Your task to perform on an android device: View the shopping cart on newegg. Search for alienware aurora on newegg, select the first entry, and add it to the cart. Image 0: 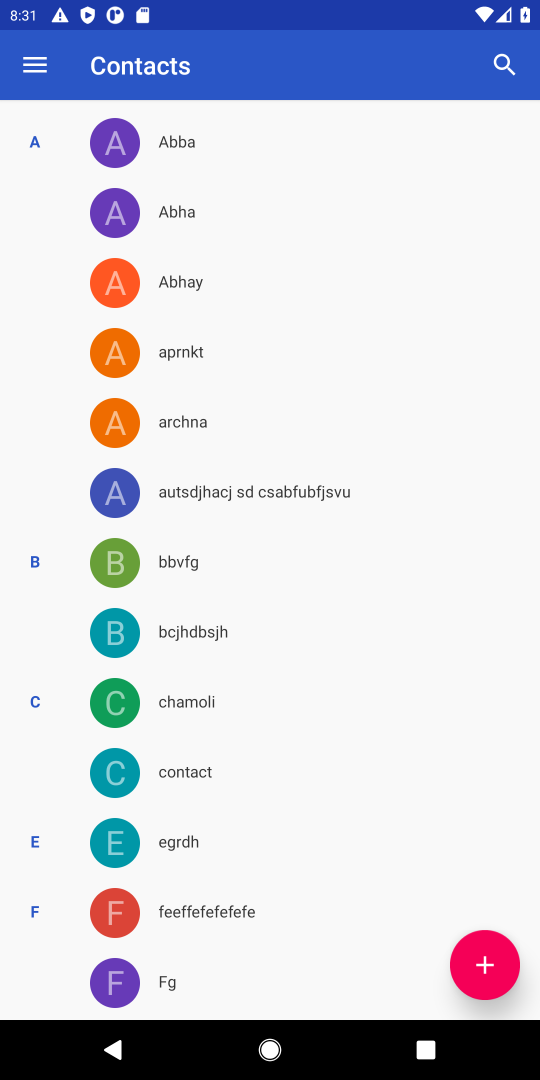
Step 0: press home button
Your task to perform on an android device: View the shopping cart on newegg. Search for alienware aurora on newegg, select the first entry, and add it to the cart. Image 1: 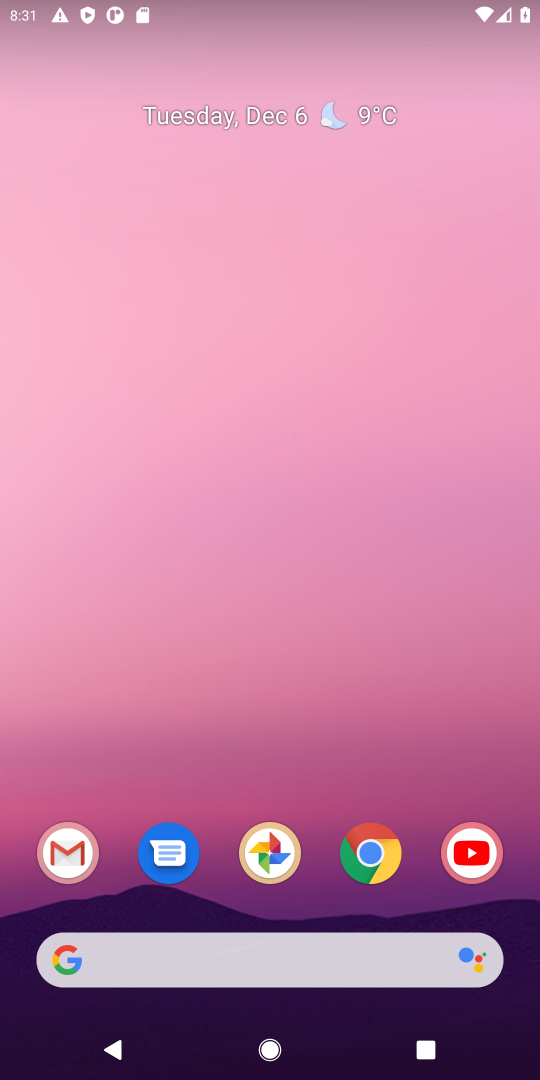
Step 1: click (376, 850)
Your task to perform on an android device: View the shopping cart on newegg. Search for alienware aurora on newegg, select the first entry, and add it to the cart. Image 2: 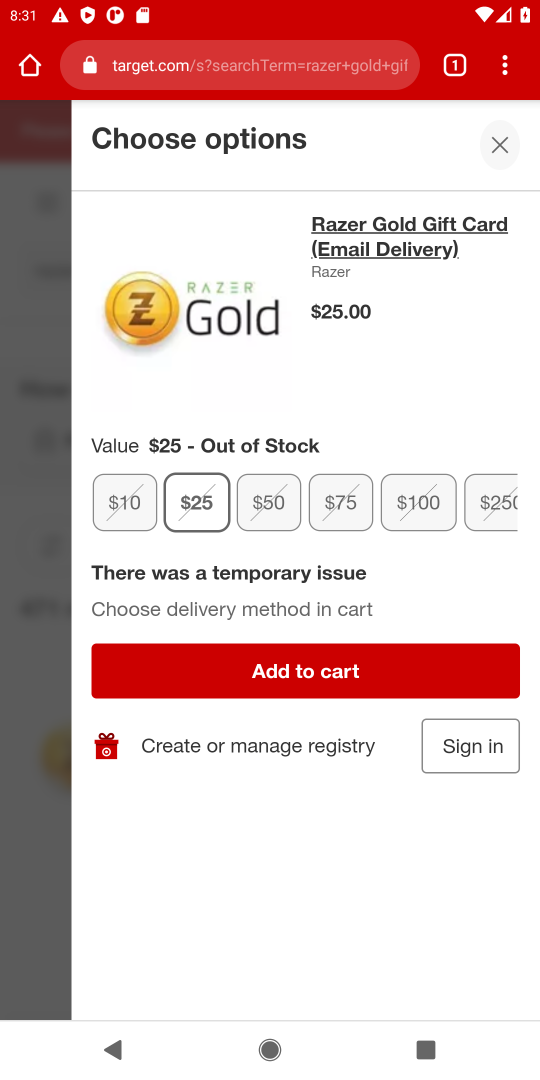
Step 2: click (292, 61)
Your task to perform on an android device: View the shopping cart on newegg. Search for alienware aurora on newegg, select the first entry, and add it to the cart. Image 3: 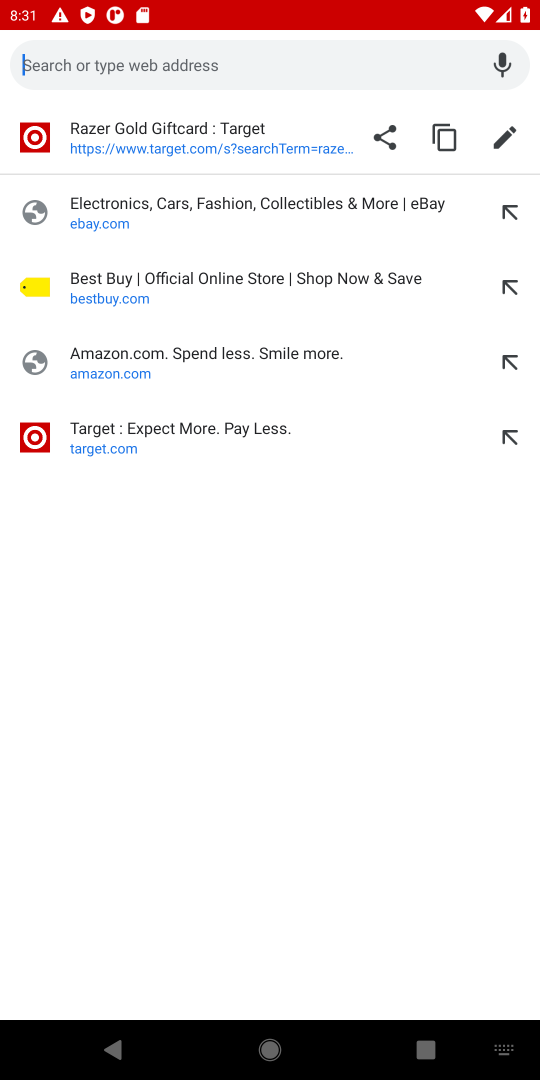
Step 3: type "newegg.com"
Your task to perform on an android device: View the shopping cart on newegg. Search for alienware aurora on newegg, select the first entry, and add it to the cart. Image 4: 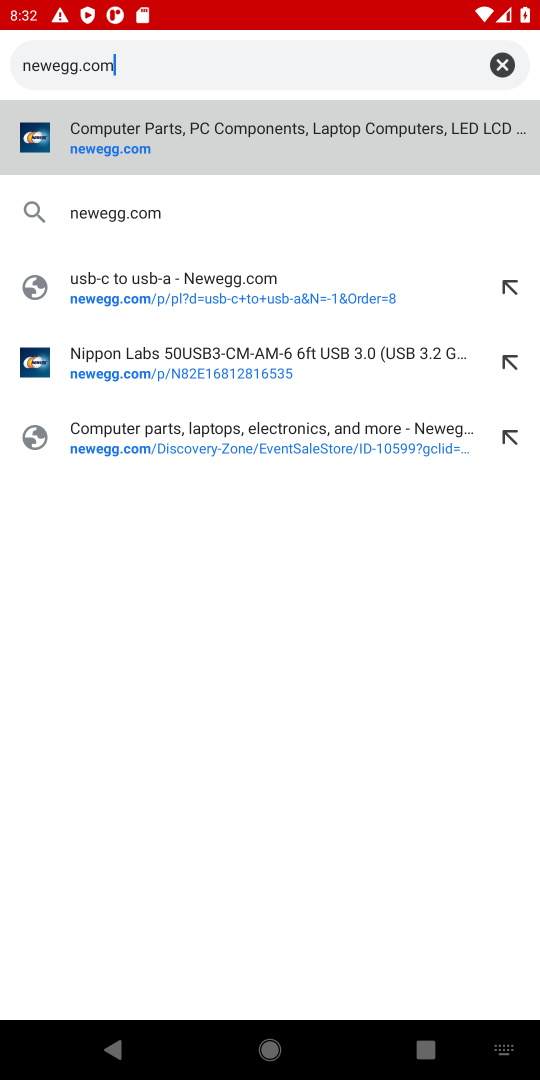
Step 4: click (194, 139)
Your task to perform on an android device: View the shopping cart on newegg. Search for alienware aurora on newegg, select the first entry, and add it to the cart. Image 5: 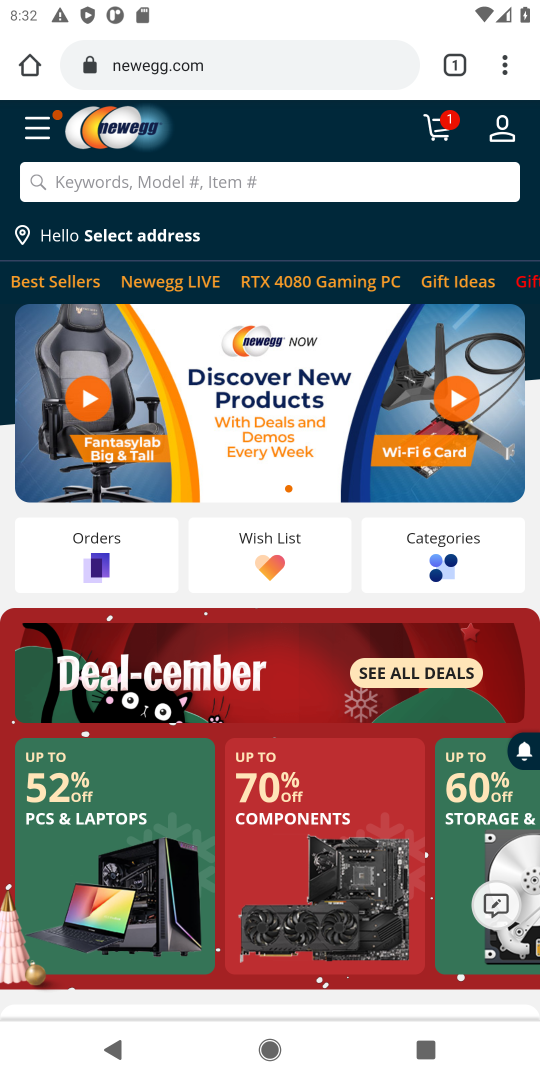
Step 5: click (404, 168)
Your task to perform on an android device: View the shopping cart on newegg. Search for alienware aurora on newegg, select the first entry, and add it to the cart. Image 6: 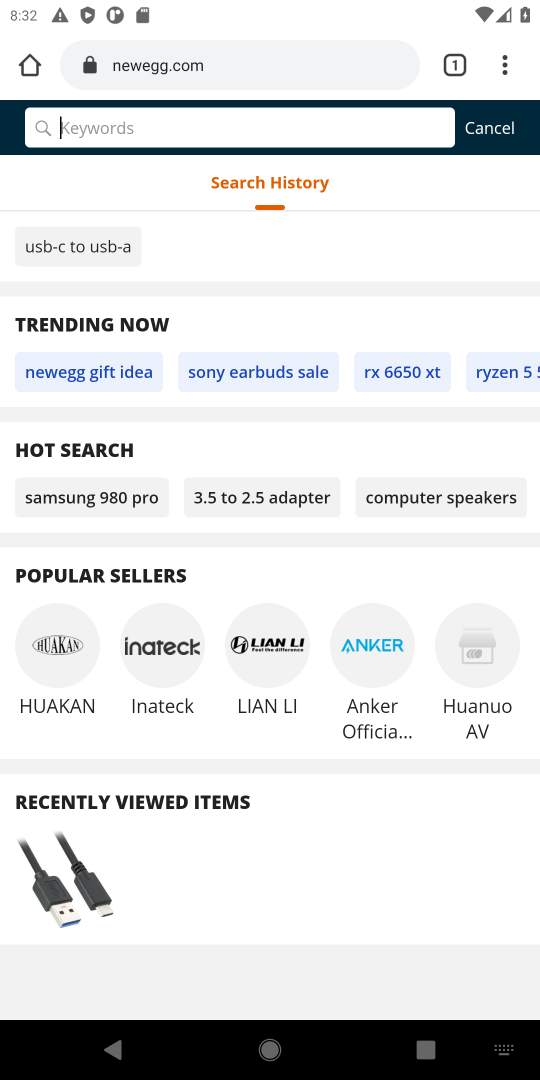
Step 6: type "alienware aurora"
Your task to perform on an android device: View the shopping cart on newegg. Search for alienware aurora on newegg, select the first entry, and add it to the cart. Image 7: 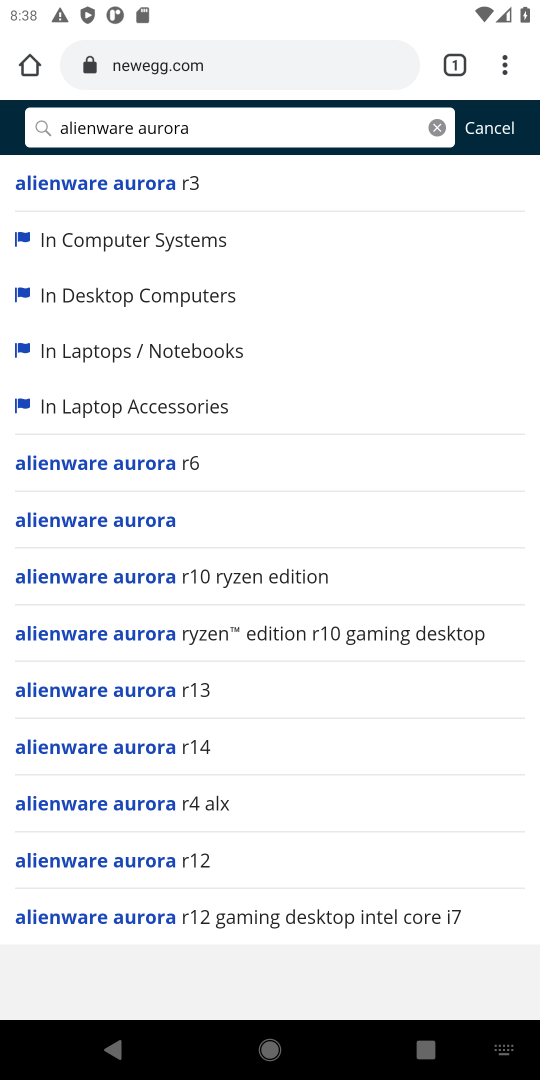
Step 7: task complete